Your task to perform on an android device: show emergency info Image 0: 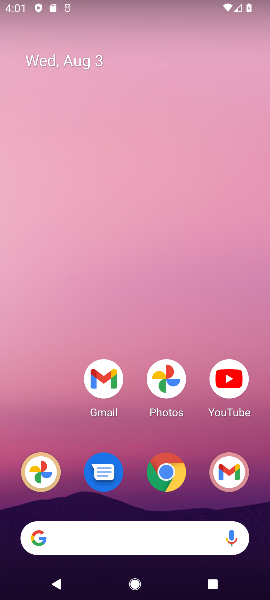
Step 0: drag from (198, 417) to (207, 5)
Your task to perform on an android device: show emergency info Image 1: 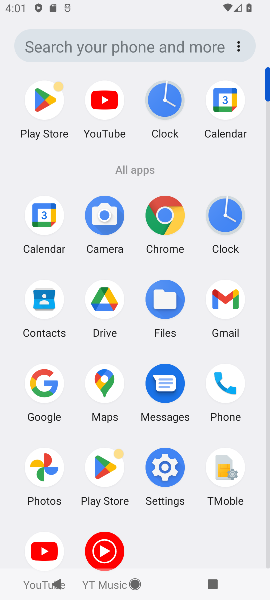
Step 1: click (169, 466)
Your task to perform on an android device: show emergency info Image 2: 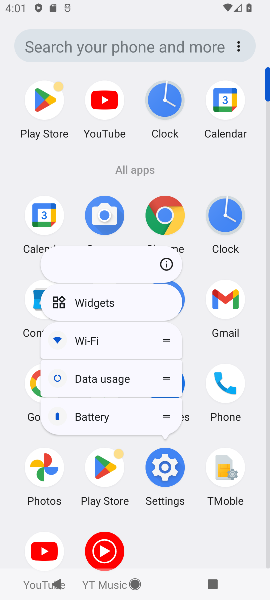
Step 2: click (169, 470)
Your task to perform on an android device: show emergency info Image 3: 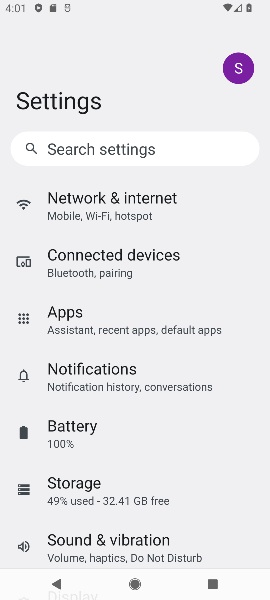
Step 3: drag from (159, 449) to (180, 86)
Your task to perform on an android device: show emergency info Image 4: 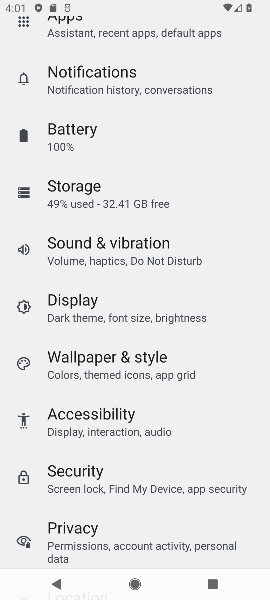
Step 4: drag from (154, 542) to (184, 225)
Your task to perform on an android device: show emergency info Image 5: 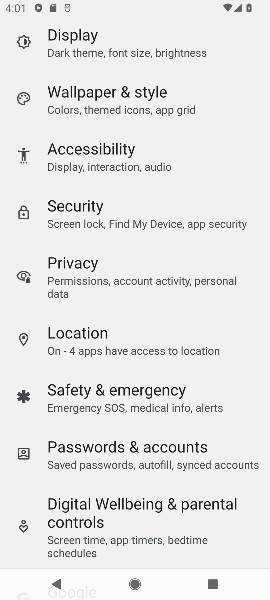
Step 5: drag from (232, 550) to (228, 266)
Your task to perform on an android device: show emergency info Image 6: 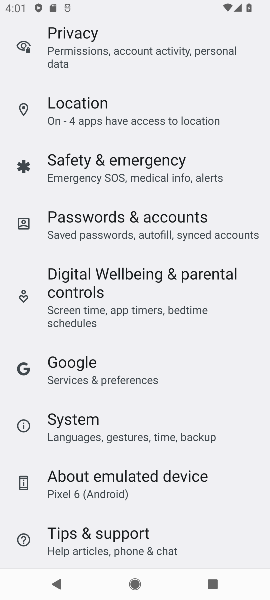
Step 6: click (133, 487)
Your task to perform on an android device: show emergency info Image 7: 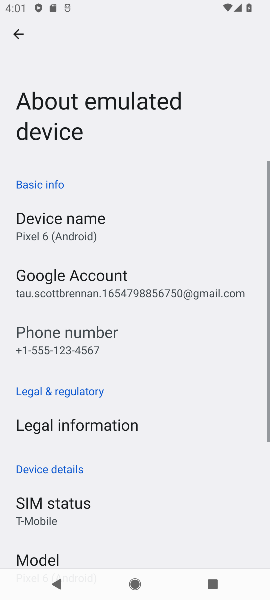
Step 7: drag from (192, 434) to (220, 151)
Your task to perform on an android device: show emergency info Image 8: 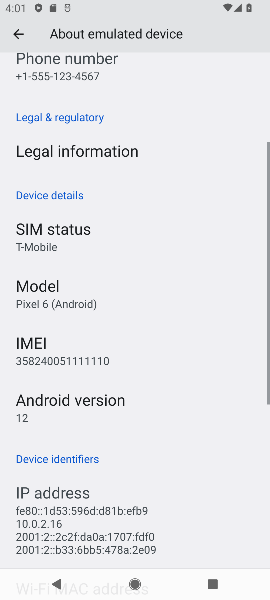
Step 8: drag from (143, 455) to (177, 175)
Your task to perform on an android device: show emergency info Image 9: 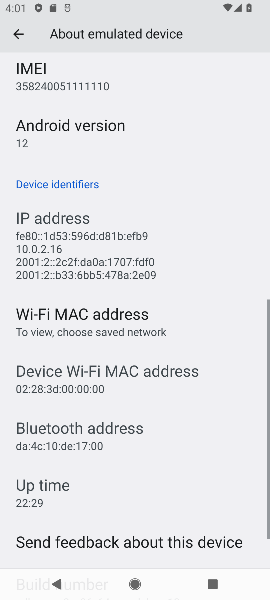
Step 9: drag from (163, 544) to (174, 213)
Your task to perform on an android device: show emergency info Image 10: 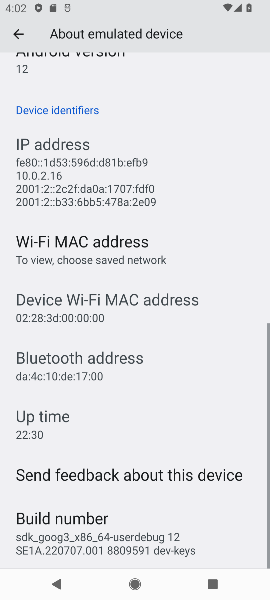
Step 10: drag from (170, 164) to (123, 550)
Your task to perform on an android device: show emergency info Image 11: 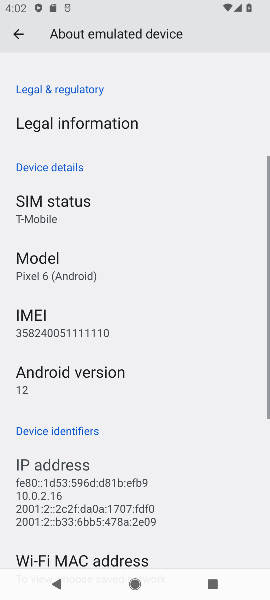
Step 11: drag from (129, 176) to (148, 455)
Your task to perform on an android device: show emergency info Image 12: 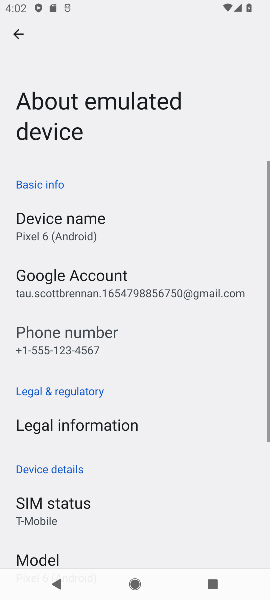
Step 12: drag from (157, 220) to (138, 422)
Your task to perform on an android device: show emergency info Image 13: 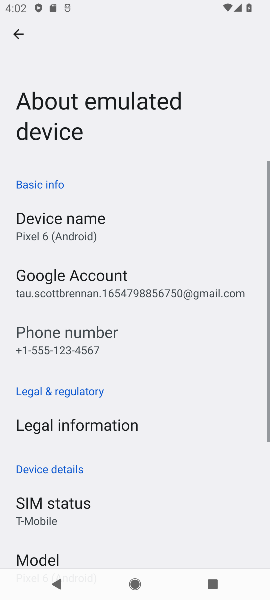
Step 13: click (23, 25)
Your task to perform on an android device: show emergency info Image 14: 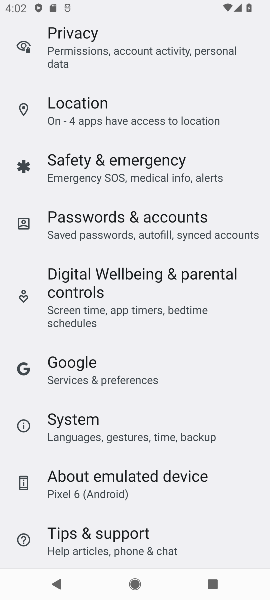
Step 14: drag from (156, 525) to (190, 175)
Your task to perform on an android device: show emergency info Image 15: 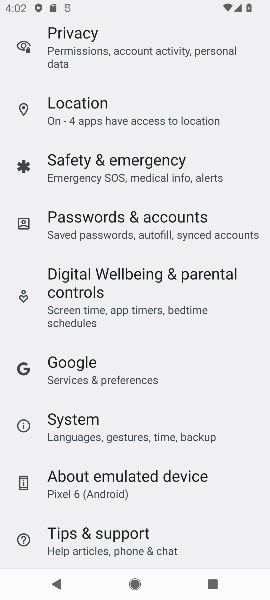
Step 15: drag from (138, 156) to (108, 512)
Your task to perform on an android device: show emergency info Image 16: 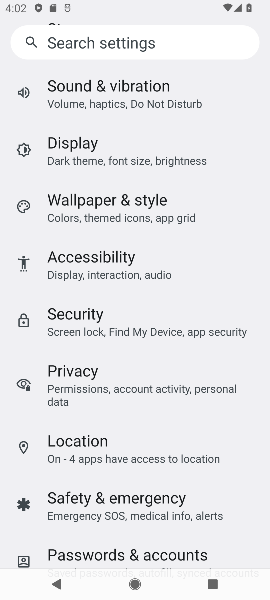
Step 16: drag from (154, 182) to (117, 476)
Your task to perform on an android device: show emergency info Image 17: 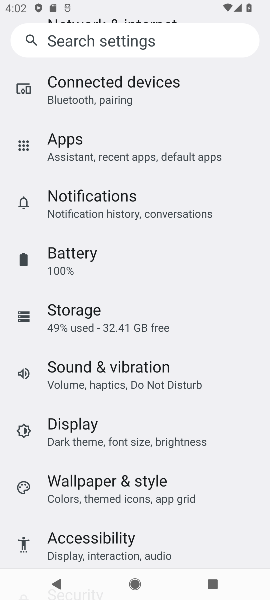
Step 17: drag from (126, 231) to (151, 50)
Your task to perform on an android device: show emergency info Image 18: 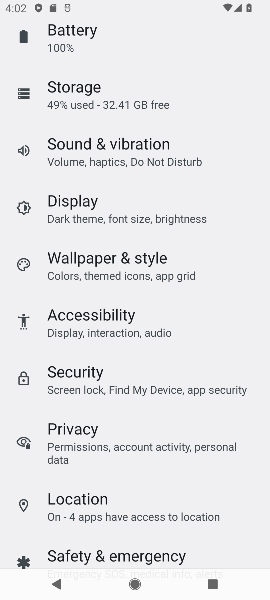
Step 18: drag from (105, 469) to (143, 248)
Your task to perform on an android device: show emergency info Image 19: 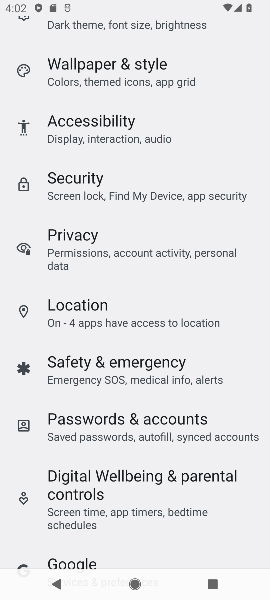
Step 19: click (106, 380)
Your task to perform on an android device: show emergency info Image 20: 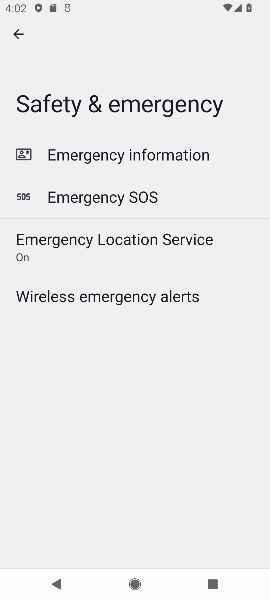
Step 20: task complete